Your task to perform on an android device: snooze an email in the gmail app Image 0: 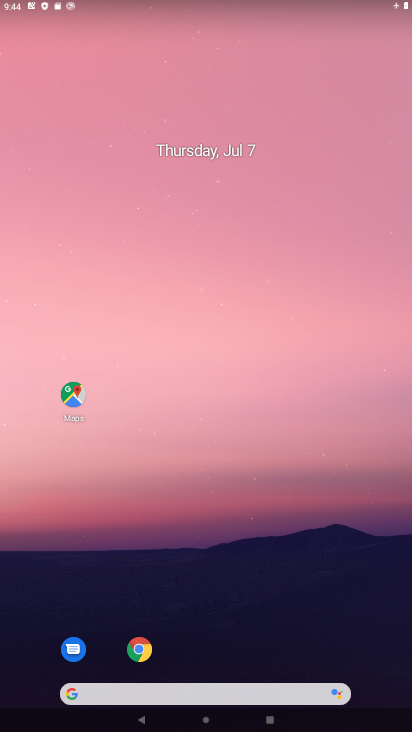
Step 0: drag from (235, 726) to (235, 79)
Your task to perform on an android device: snooze an email in the gmail app Image 1: 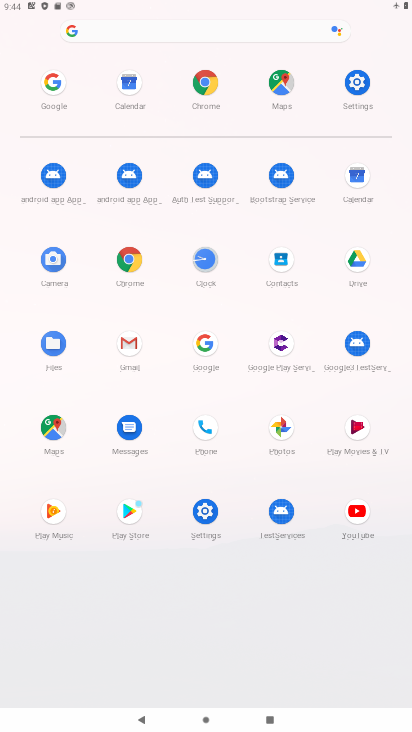
Step 1: click (131, 348)
Your task to perform on an android device: snooze an email in the gmail app Image 2: 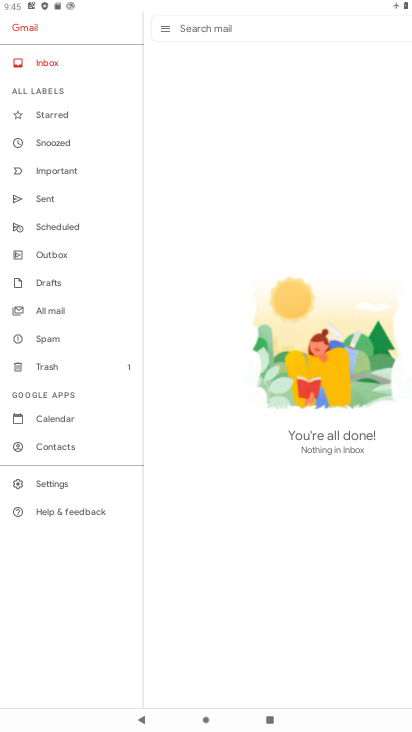
Step 2: click (45, 60)
Your task to perform on an android device: snooze an email in the gmail app Image 3: 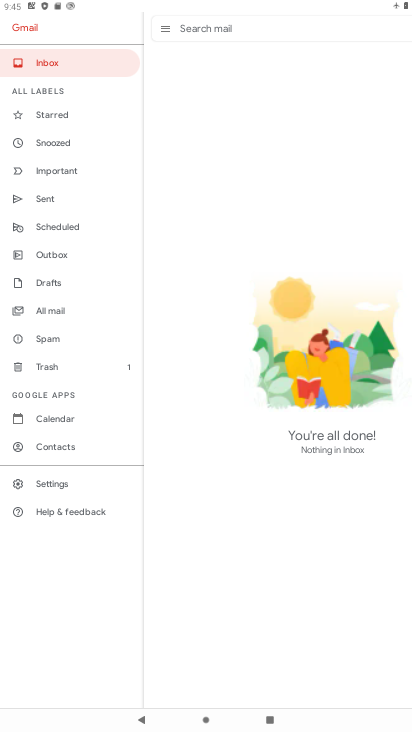
Step 3: task complete